Your task to perform on an android device: Go to notification settings Image 0: 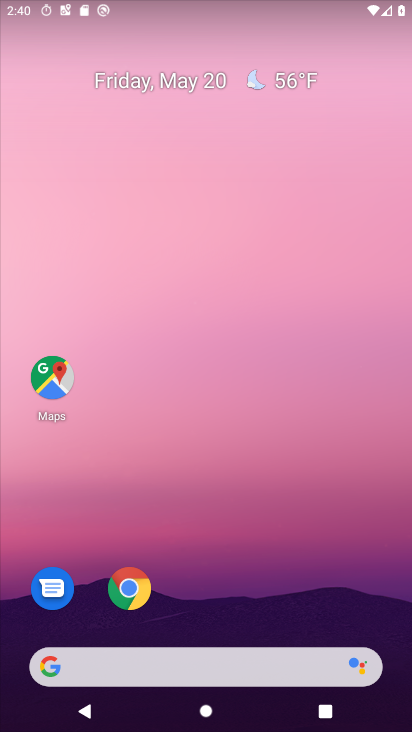
Step 0: drag from (17, 657) to (272, 245)
Your task to perform on an android device: Go to notification settings Image 1: 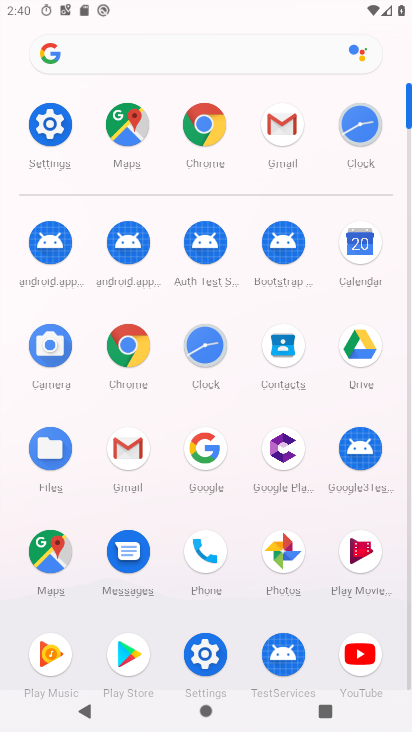
Step 1: click (56, 132)
Your task to perform on an android device: Go to notification settings Image 2: 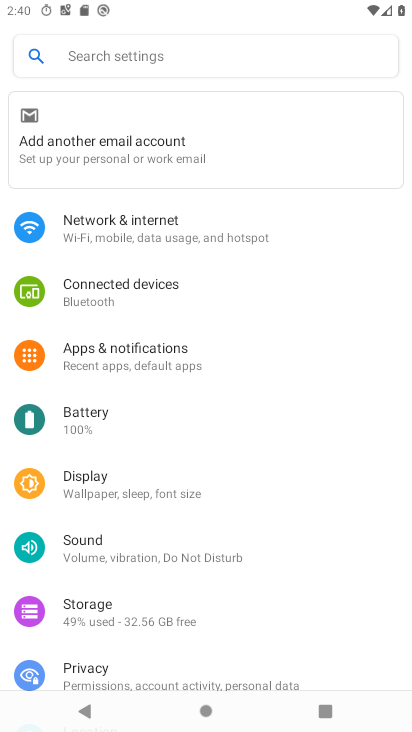
Step 2: click (143, 350)
Your task to perform on an android device: Go to notification settings Image 3: 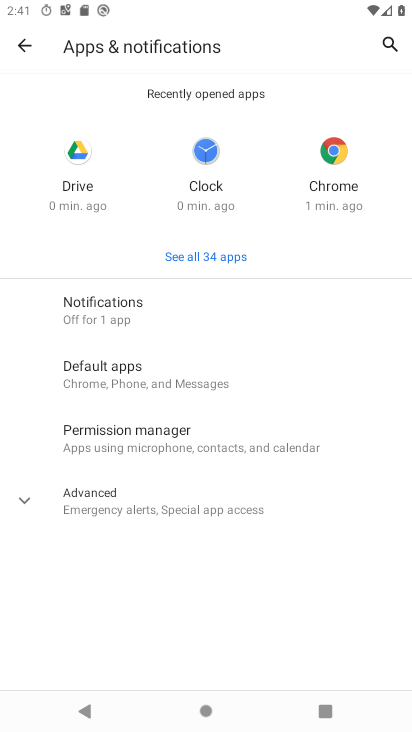
Step 3: click (97, 300)
Your task to perform on an android device: Go to notification settings Image 4: 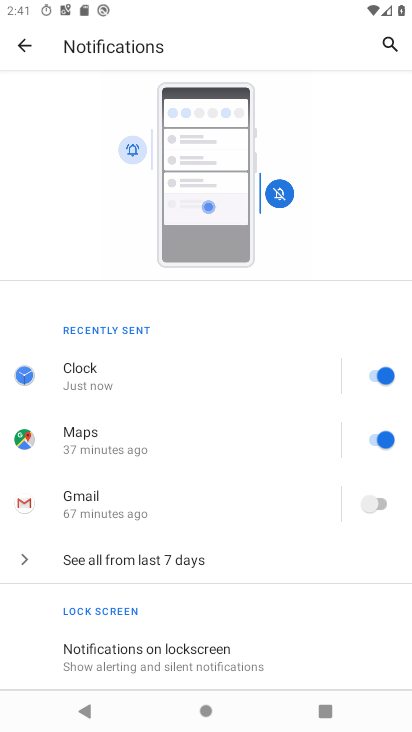
Step 4: task complete